Your task to perform on an android device: change text size in settings app Image 0: 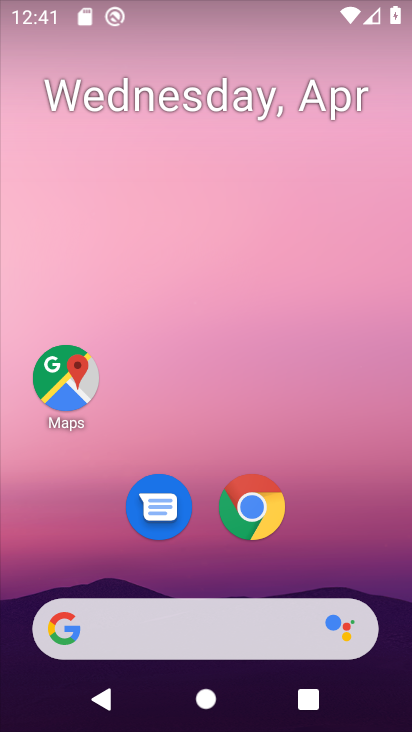
Step 0: click (391, 12)
Your task to perform on an android device: change text size in settings app Image 1: 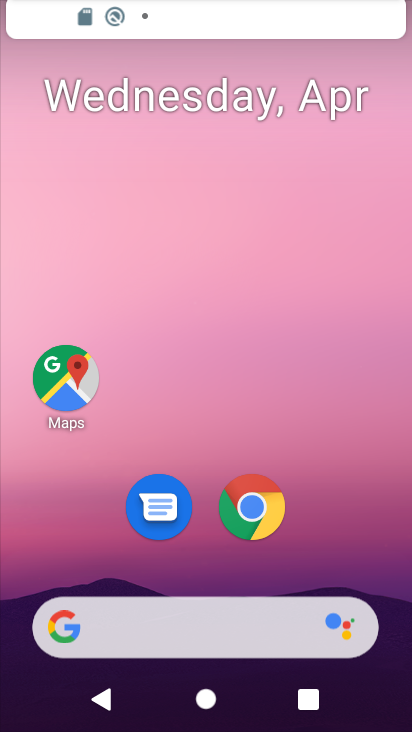
Step 1: drag from (311, 431) to (358, 21)
Your task to perform on an android device: change text size in settings app Image 2: 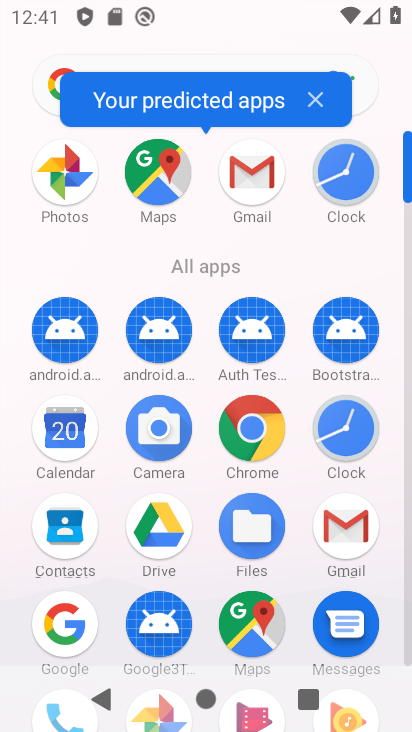
Step 2: drag from (372, 446) to (406, 119)
Your task to perform on an android device: change text size in settings app Image 3: 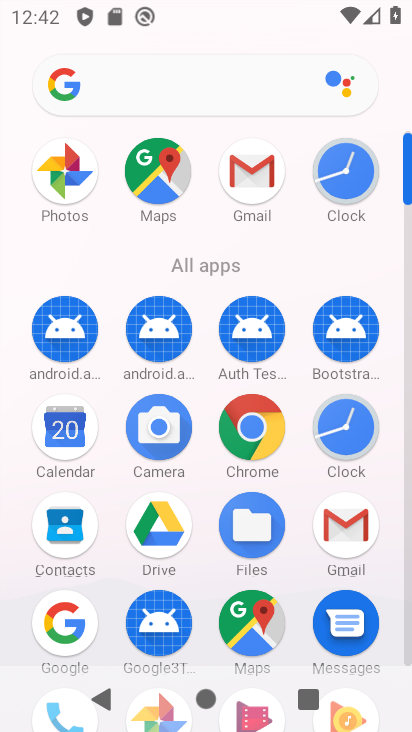
Step 3: drag from (391, 590) to (369, 307)
Your task to perform on an android device: change text size in settings app Image 4: 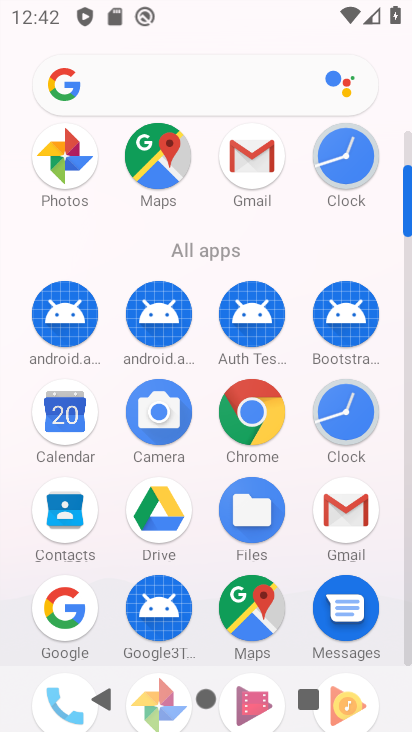
Step 4: drag from (397, 446) to (385, 186)
Your task to perform on an android device: change text size in settings app Image 5: 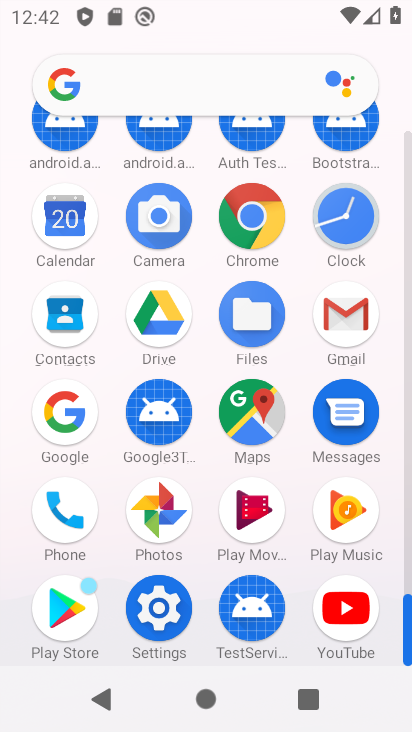
Step 5: click (165, 613)
Your task to perform on an android device: change text size in settings app Image 6: 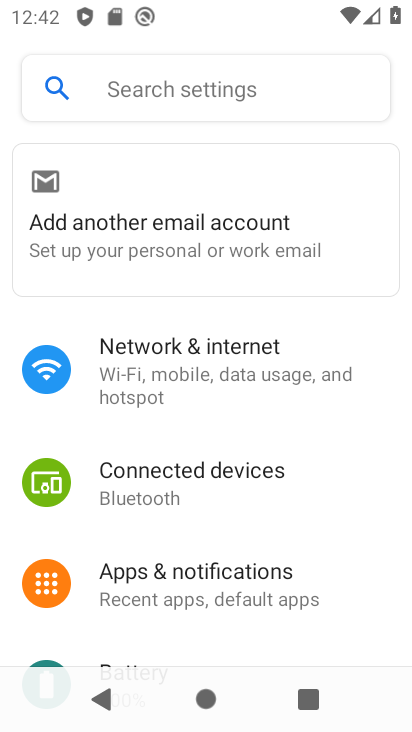
Step 6: drag from (247, 516) to (267, 304)
Your task to perform on an android device: change text size in settings app Image 7: 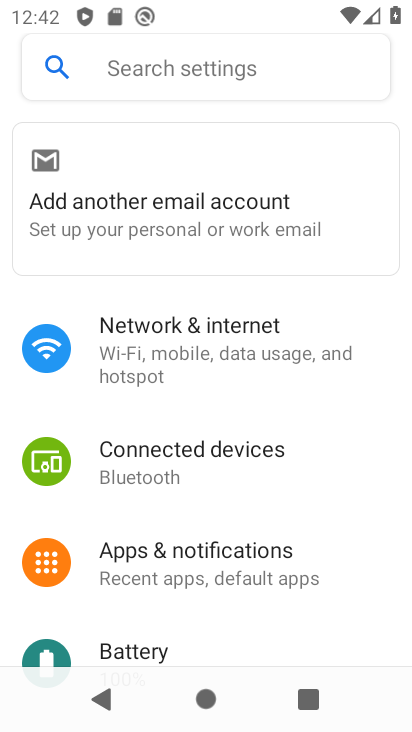
Step 7: drag from (286, 559) to (273, 269)
Your task to perform on an android device: change text size in settings app Image 8: 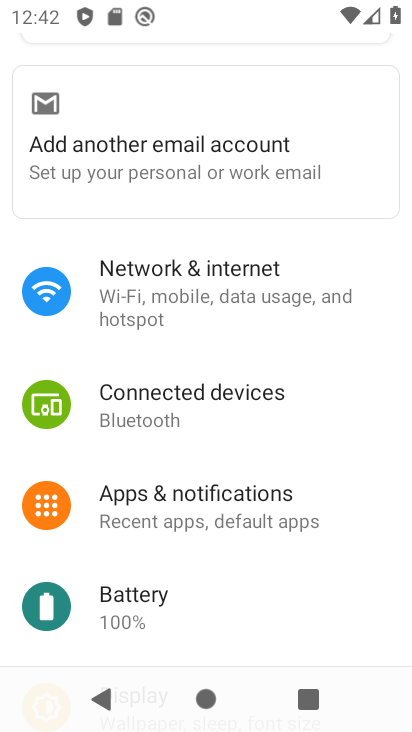
Step 8: drag from (280, 522) to (312, 241)
Your task to perform on an android device: change text size in settings app Image 9: 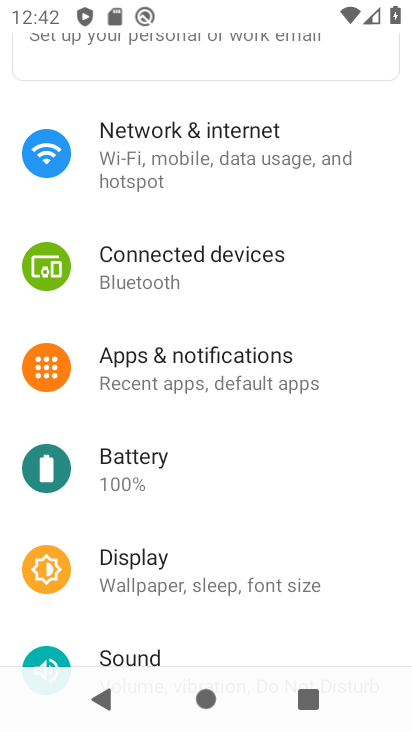
Step 9: click (274, 570)
Your task to perform on an android device: change text size in settings app Image 10: 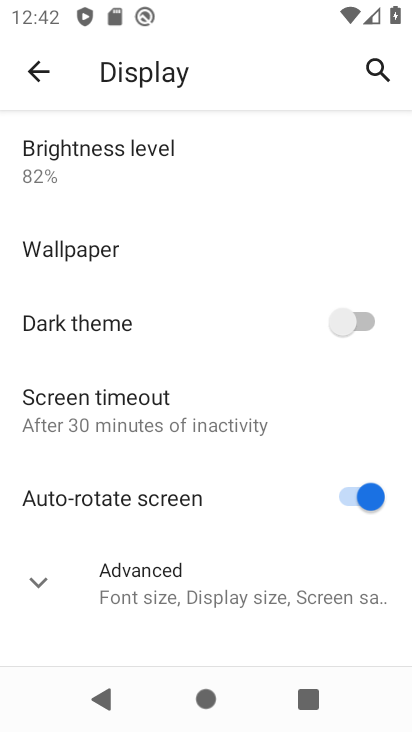
Step 10: click (189, 594)
Your task to perform on an android device: change text size in settings app Image 11: 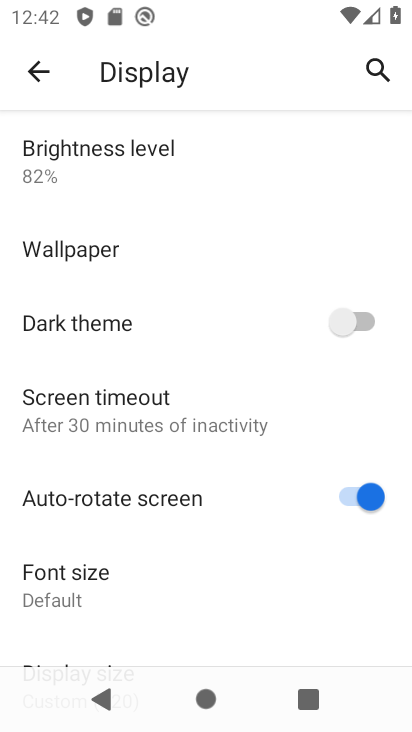
Step 11: click (112, 590)
Your task to perform on an android device: change text size in settings app Image 12: 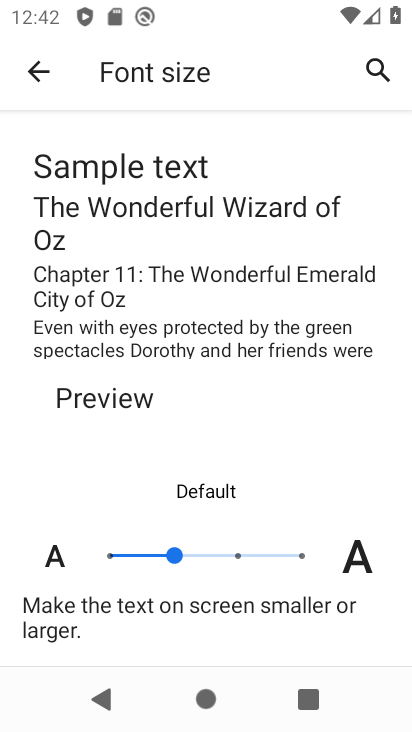
Step 12: click (211, 556)
Your task to perform on an android device: change text size in settings app Image 13: 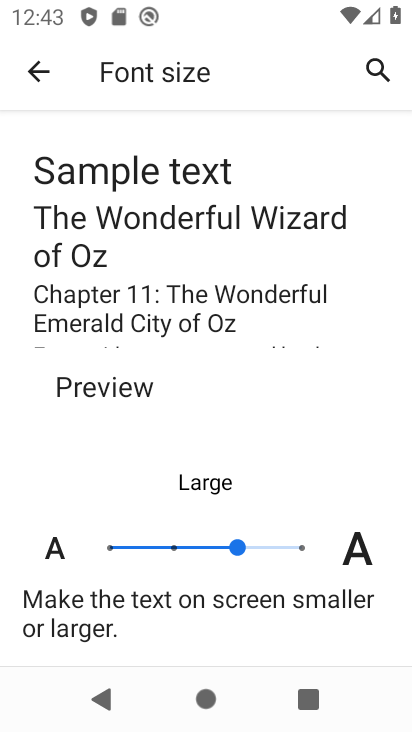
Step 13: task complete